Your task to perform on an android device: check storage Image 0: 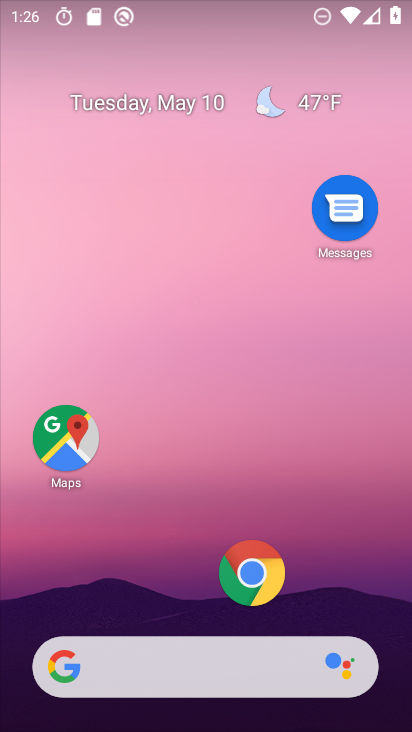
Step 0: drag from (178, 588) to (280, 95)
Your task to perform on an android device: check storage Image 1: 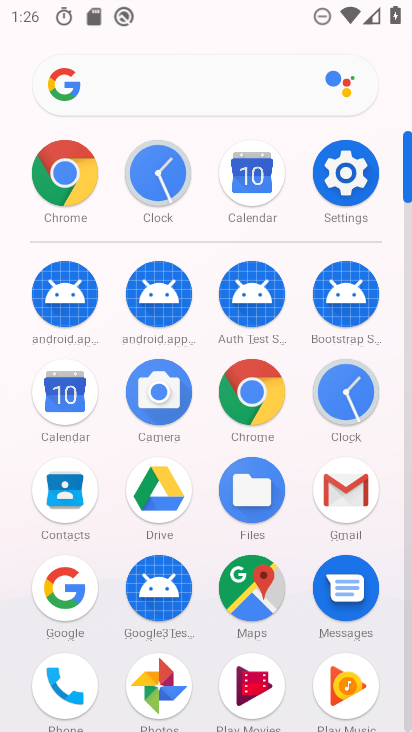
Step 1: click (362, 168)
Your task to perform on an android device: check storage Image 2: 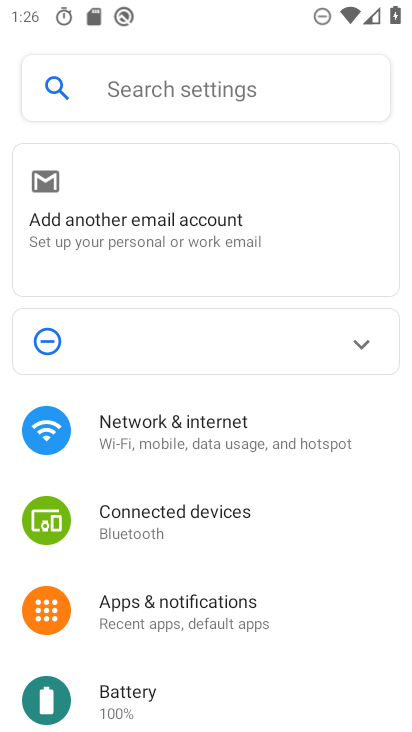
Step 2: drag from (190, 649) to (338, 77)
Your task to perform on an android device: check storage Image 3: 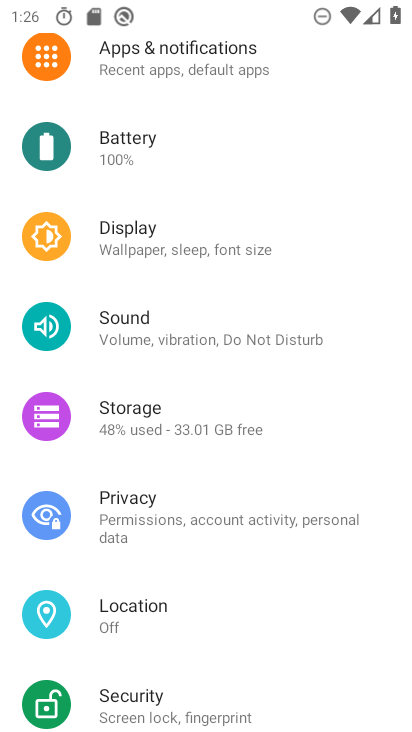
Step 3: click (131, 426)
Your task to perform on an android device: check storage Image 4: 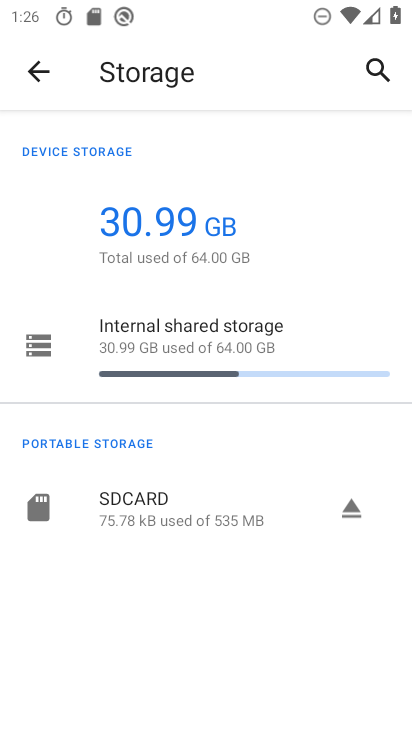
Step 4: task complete